Your task to perform on an android device: Search for razer thresher on newegg, select the first entry, and add it to the cart. Image 0: 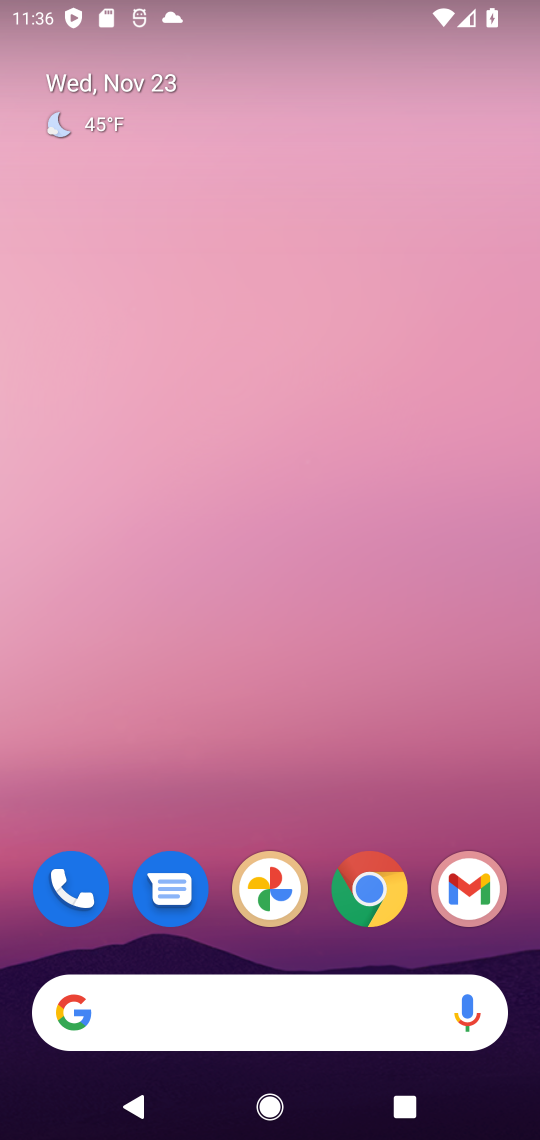
Step 0: click (359, 893)
Your task to perform on an android device: Search for razer thresher on newegg, select the first entry, and add it to the cart. Image 1: 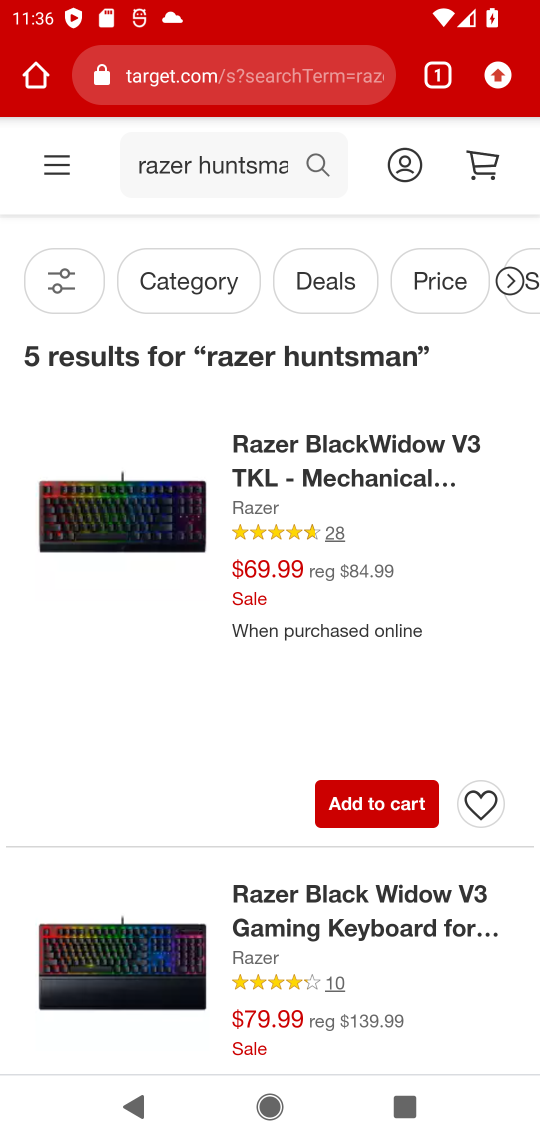
Step 1: click (200, 85)
Your task to perform on an android device: Search for razer thresher on newegg, select the first entry, and add it to the cart. Image 2: 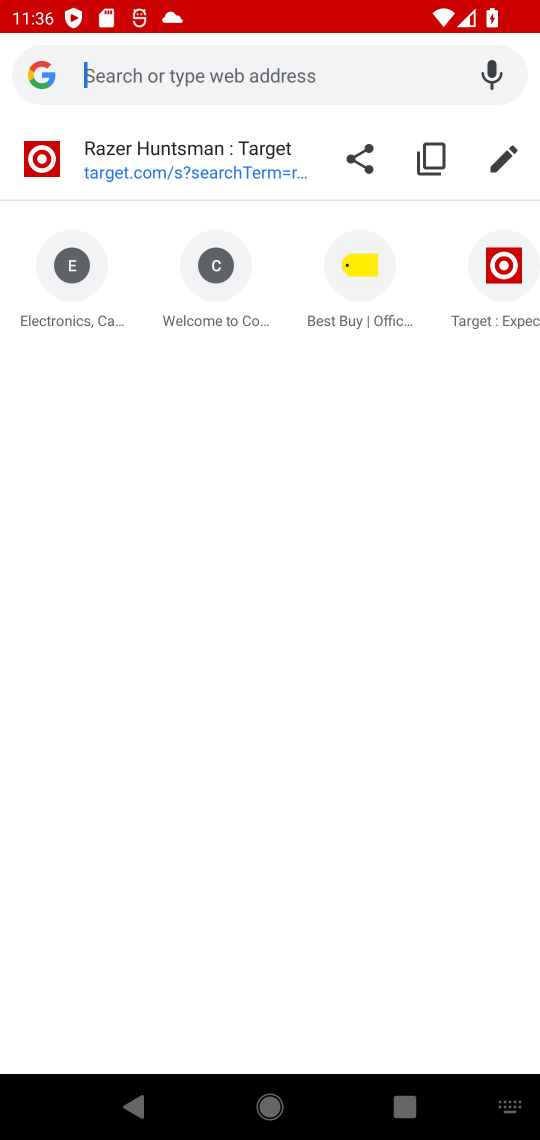
Step 2: type "newegg.com"
Your task to perform on an android device: Search for razer thresher on newegg, select the first entry, and add it to the cart. Image 3: 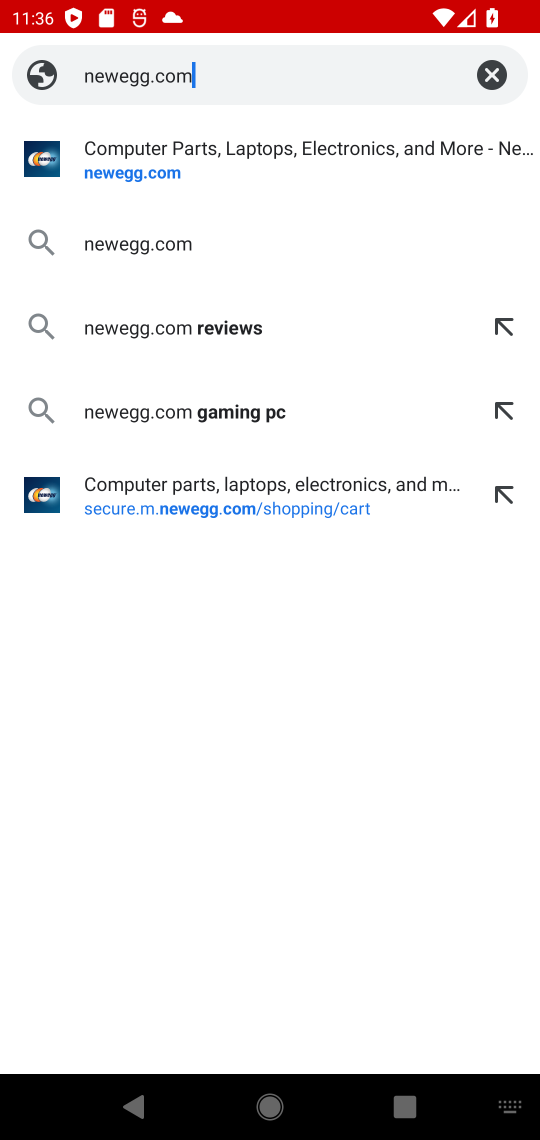
Step 3: click (92, 176)
Your task to perform on an android device: Search for razer thresher on newegg, select the first entry, and add it to the cart. Image 4: 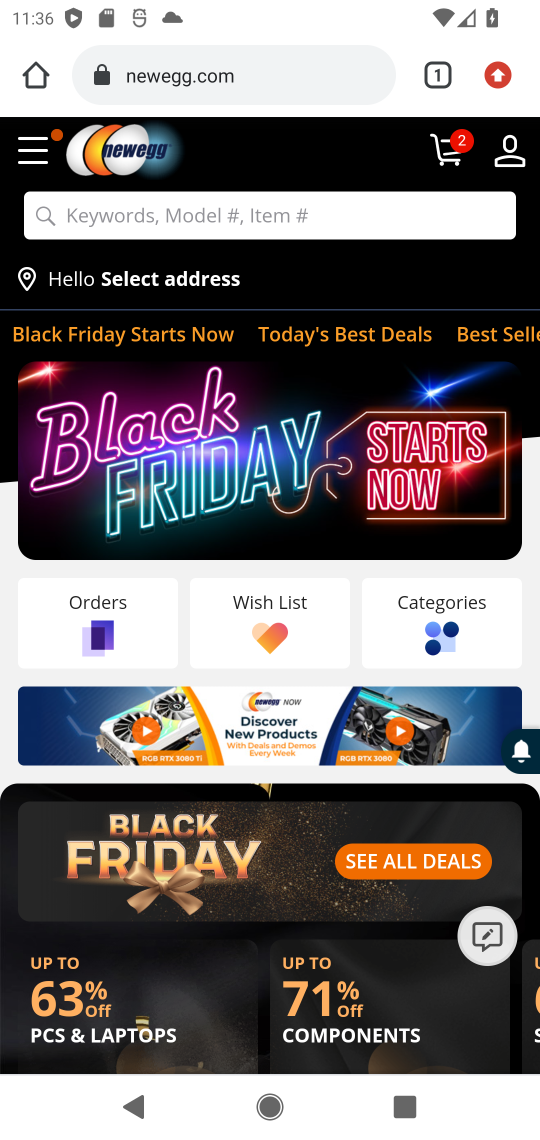
Step 4: click (91, 216)
Your task to perform on an android device: Search for razer thresher on newegg, select the first entry, and add it to the cart. Image 5: 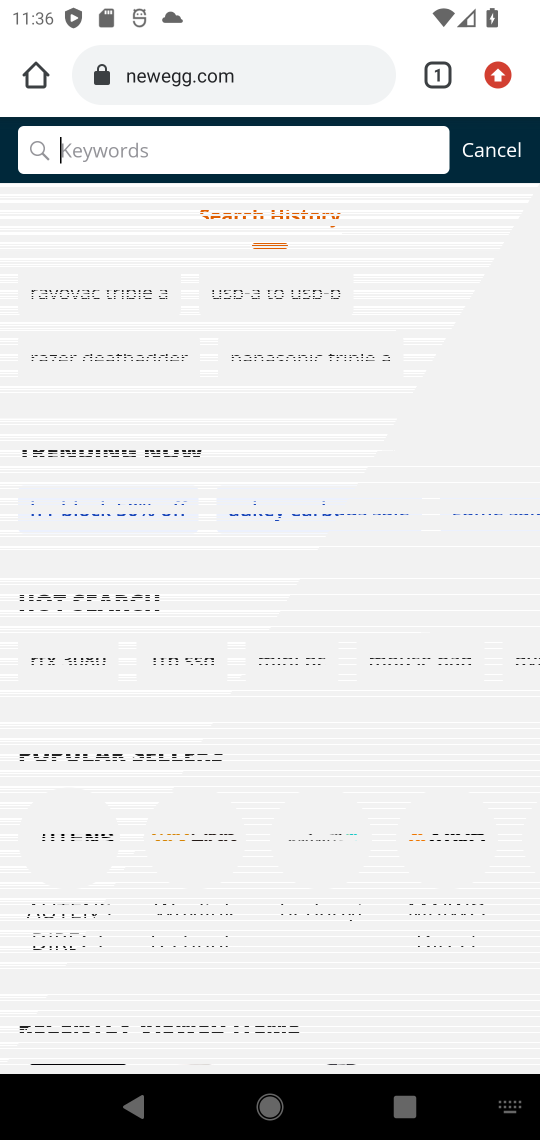
Step 5: type "razer thresher"
Your task to perform on an android device: Search for razer thresher on newegg, select the first entry, and add it to the cart. Image 6: 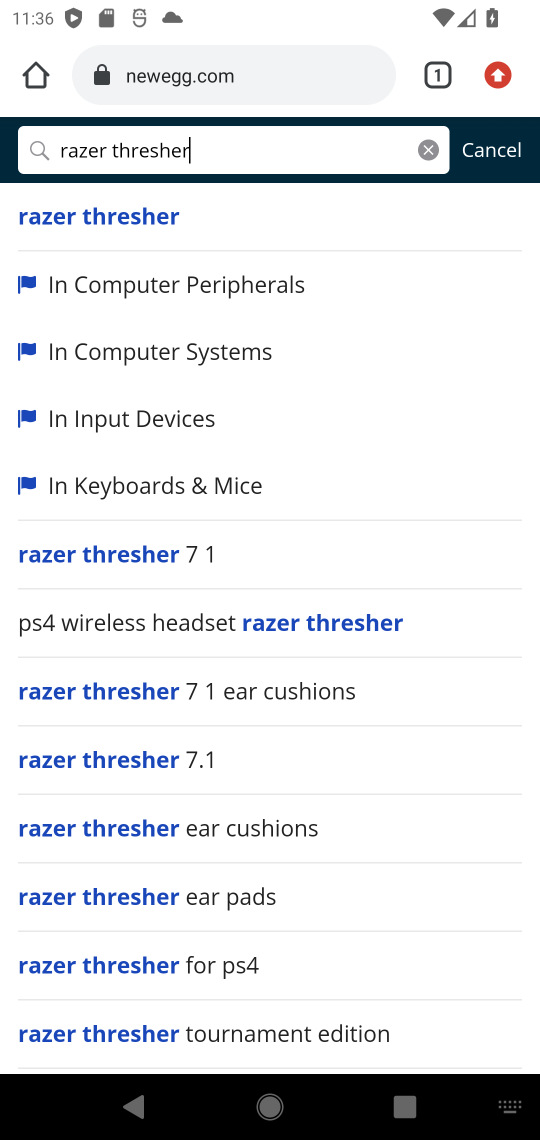
Step 6: click (108, 213)
Your task to perform on an android device: Search for razer thresher on newegg, select the first entry, and add it to the cart. Image 7: 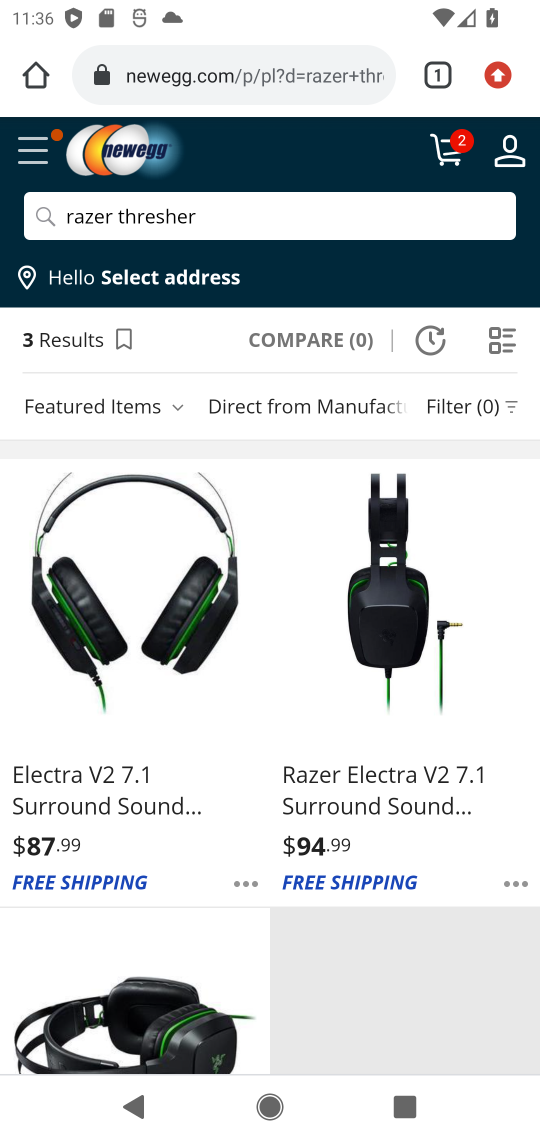
Step 7: task complete